Your task to perform on an android device: set the stopwatch Image 0: 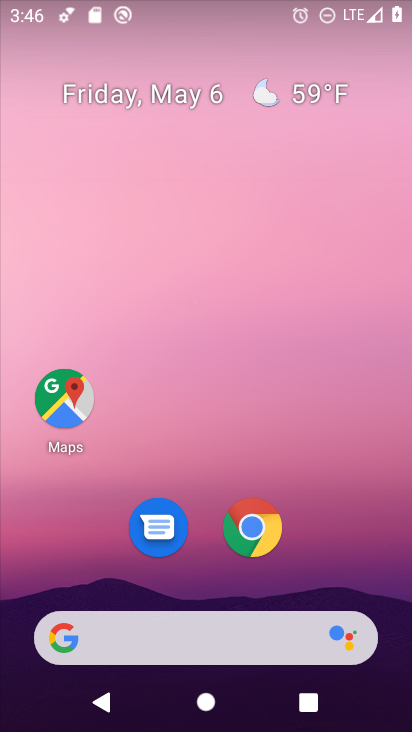
Step 0: drag from (303, 574) to (305, 47)
Your task to perform on an android device: set the stopwatch Image 1: 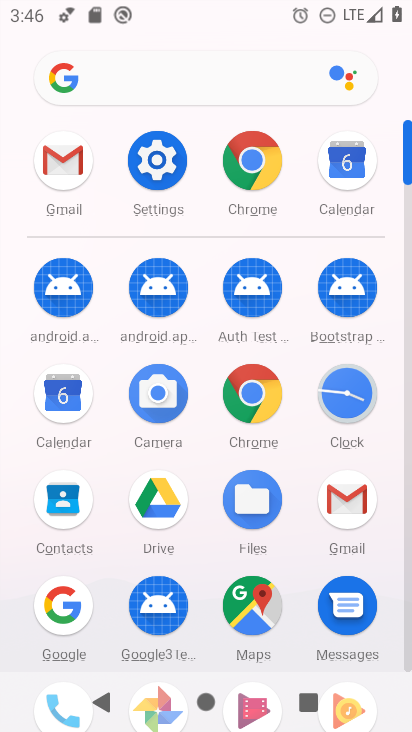
Step 1: click (340, 395)
Your task to perform on an android device: set the stopwatch Image 2: 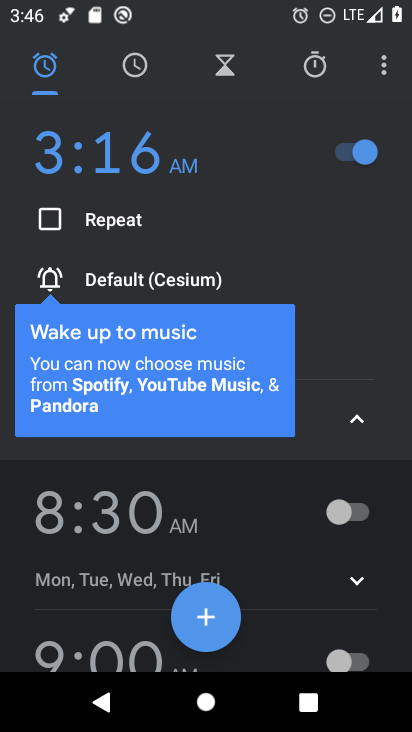
Step 2: click (231, 72)
Your task to perform on an android device: set the stopwatch Image 3: 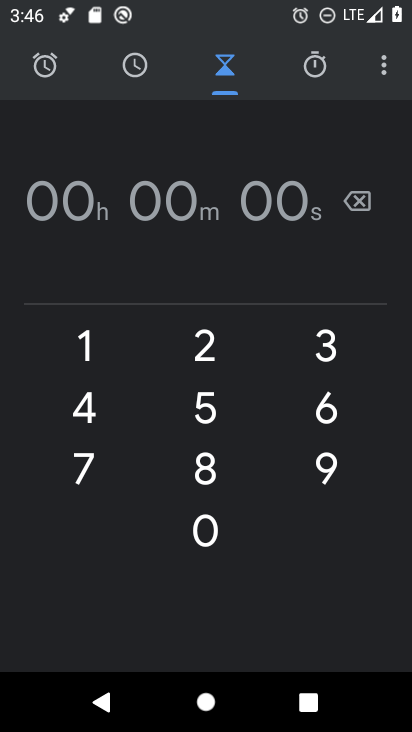
Step 3: click (307, 60)
Your task to perform on an android device: set the stopwatch Image 4: 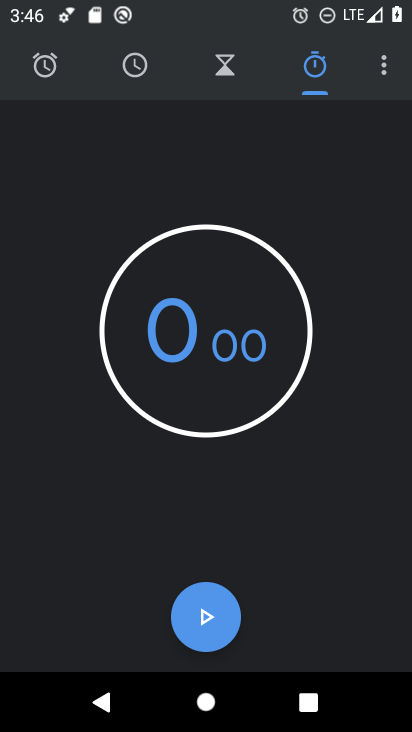
Step 4: click (195, 595)
Your task to perform on an android device: set the stopwatch Image 5: 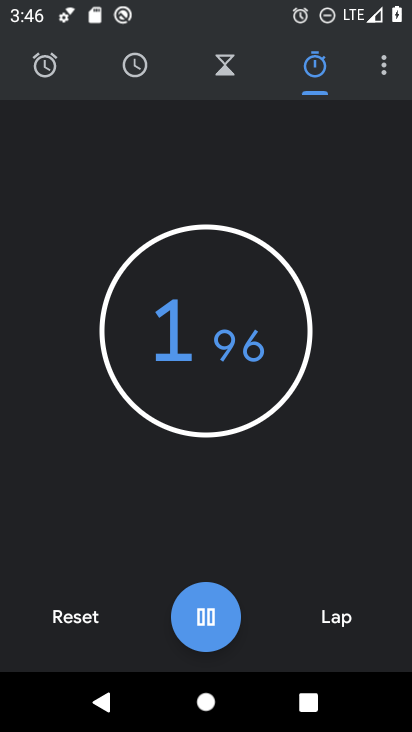
Step 5: click (219, 609)
Your task to perform on an android device: set the stopwatch Image 6: 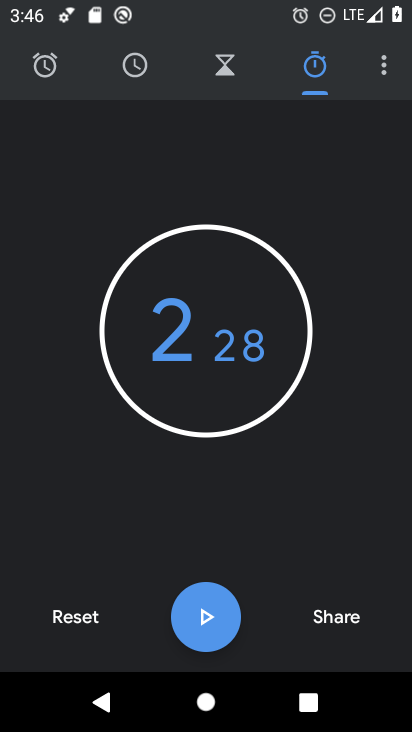
Step 6: task complete